Your task to perform on an android device: change keyboard looks Image 0: 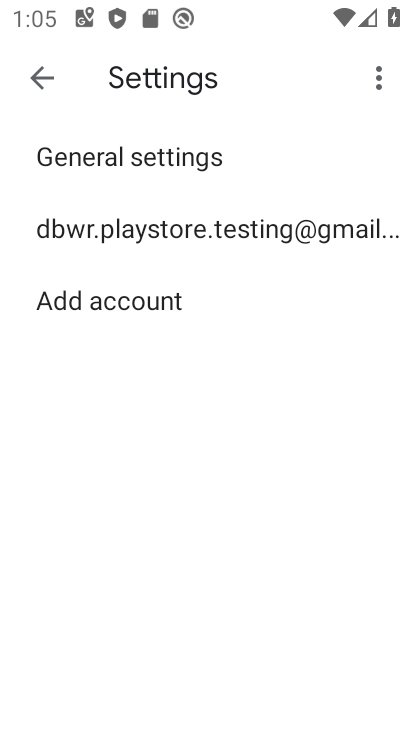
Step 0: press home button
Your task to perform on an android device: change keyboard looks Image 1: 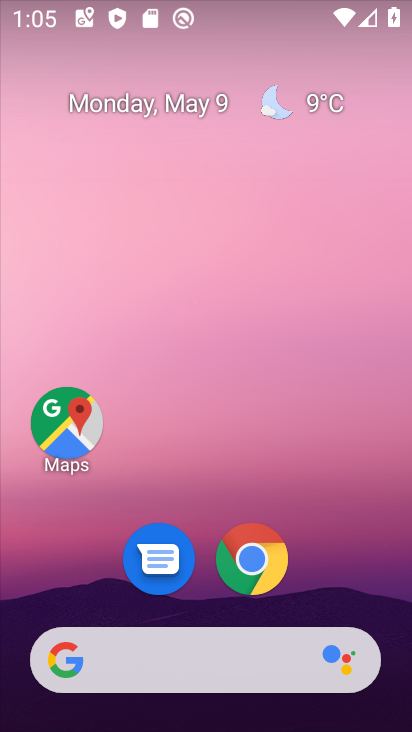
Step 1: drag from (357, 507) to (374, 306)
Your task to perform on an android device: change keyboard looks Image 2: 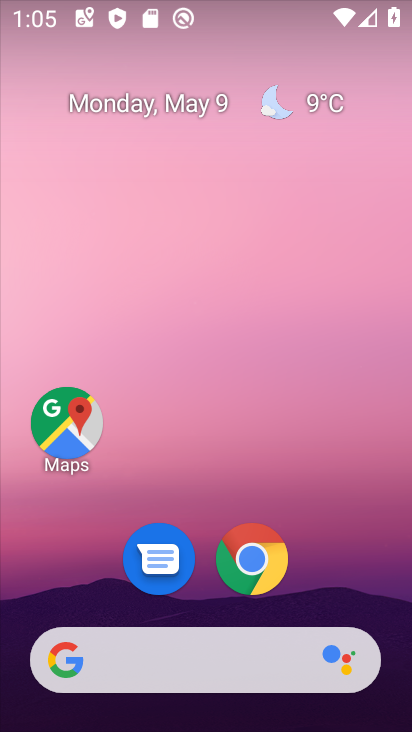
Step 2: drag from (329, 596) to (312, 318)
Your task to perform on an android device: change keyboard looks Image 3: 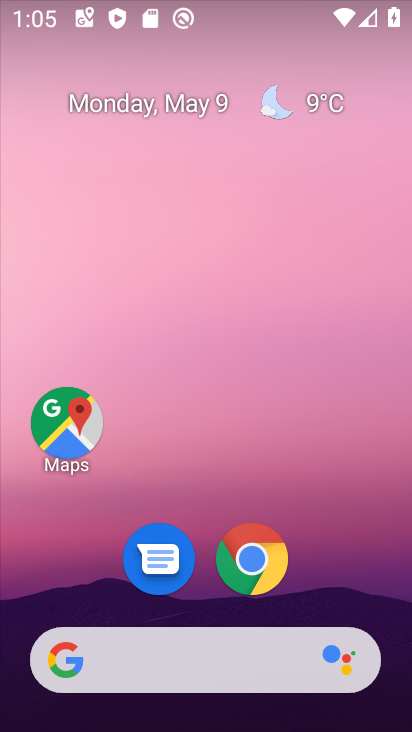
Step 3: drag from (315, 479) to (319, 286)
Your task to perform on an android device: change keyboard looks Image 4: 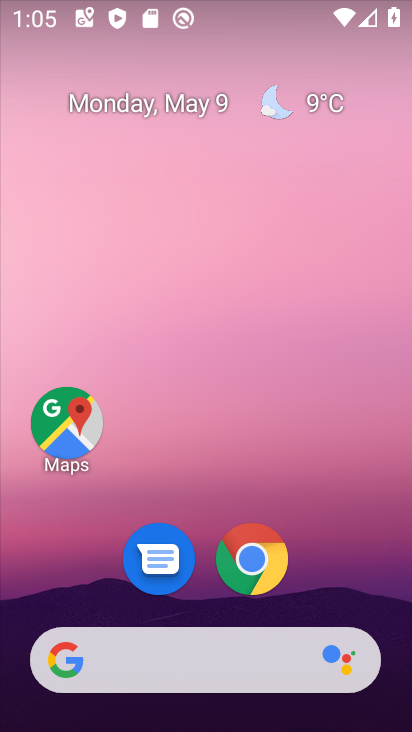
Step 4: drag from (326, 603) to (321, 260)
Your task to perform on an android device: change keyboard looks Image 5: 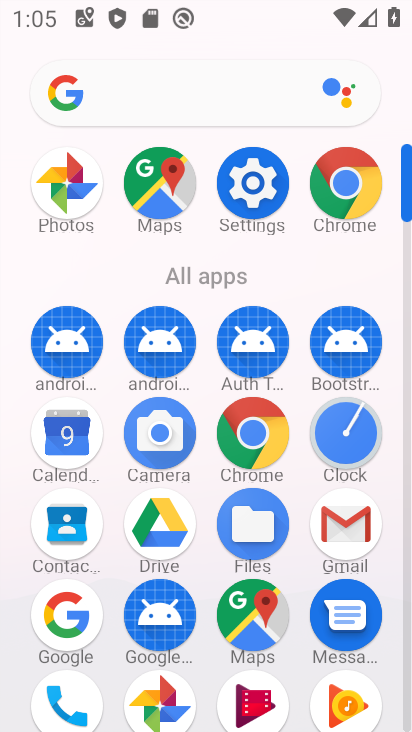
Step 5: click (247, 180)
Your task to perform on an android device: change keyboard looks Image 6: 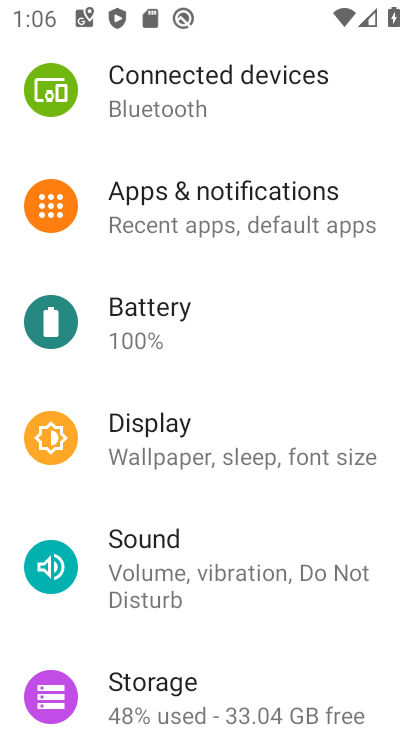
Step 6: drag from (251, 648) to (258, 260)
Your task to perform on an android device: change keyboard looks Image 7: 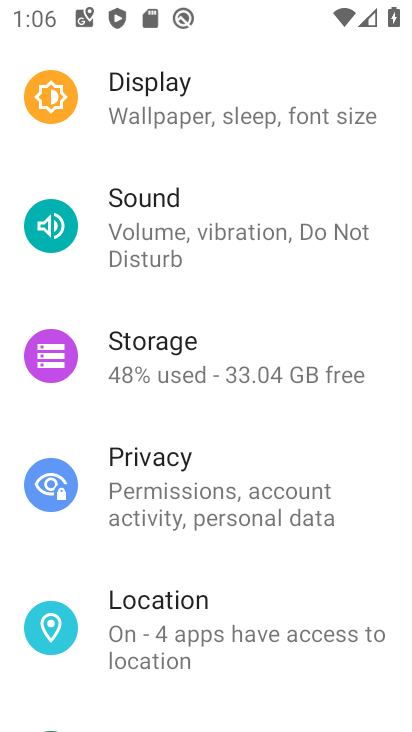
Step 7: drag from (224, 622) to (243, 250)
Your task to perform on an android device: change keyboard looks Image 8: 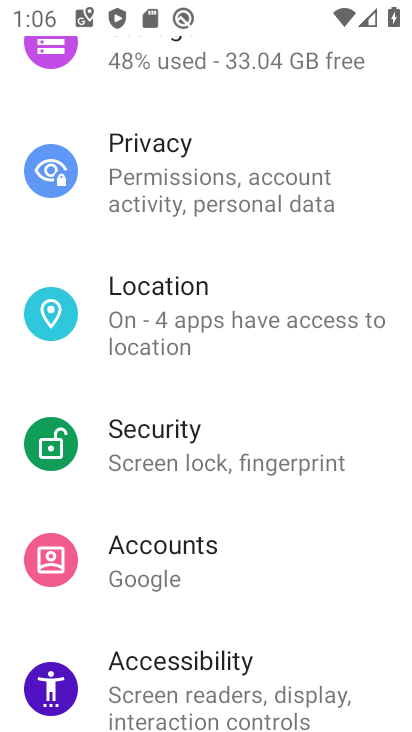
Step 8: click (190, 658)
Your task to perform on an android device: change keyboard looks Image 9: 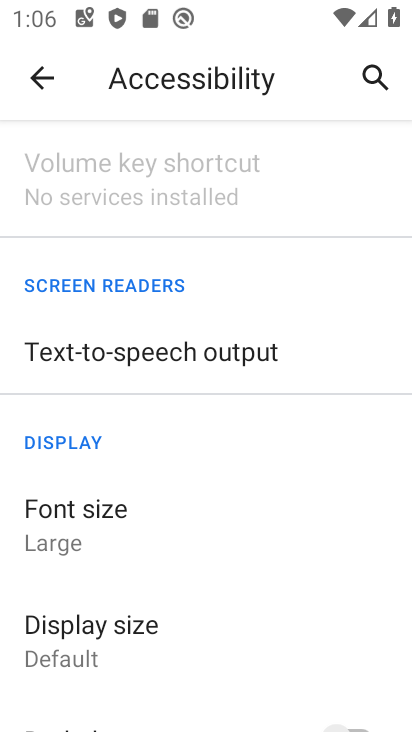
Step 9: click (91, 517)
Your task to perform on an android device: change keyboard looks Image 10: 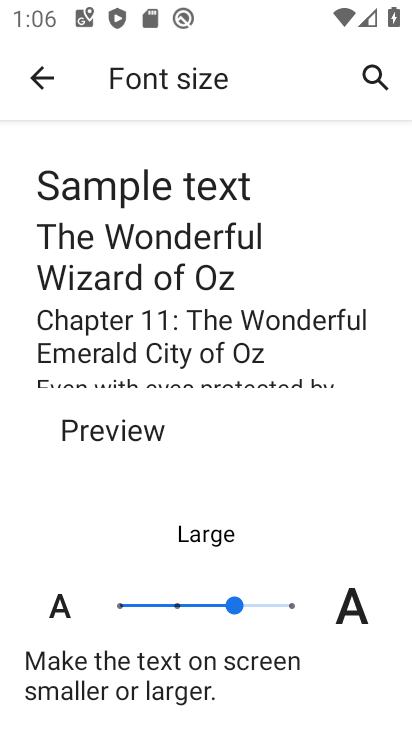
Step 10: click (182, 604)
Your task to perform on an android device: change keyboard looks Image 11: 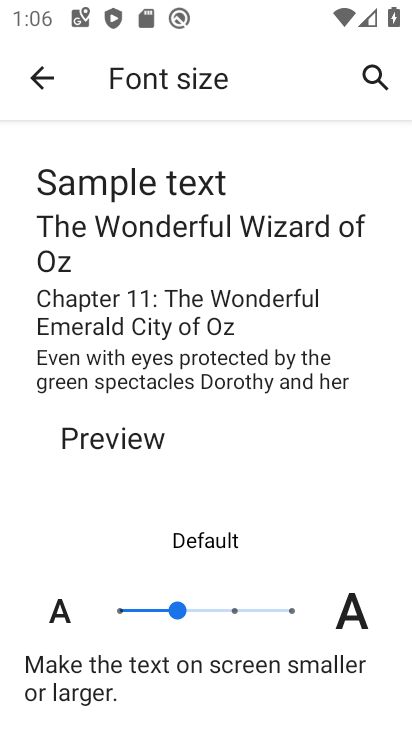
Step 11: task complete